Your task to perform on an android device: check data usage Image 0: 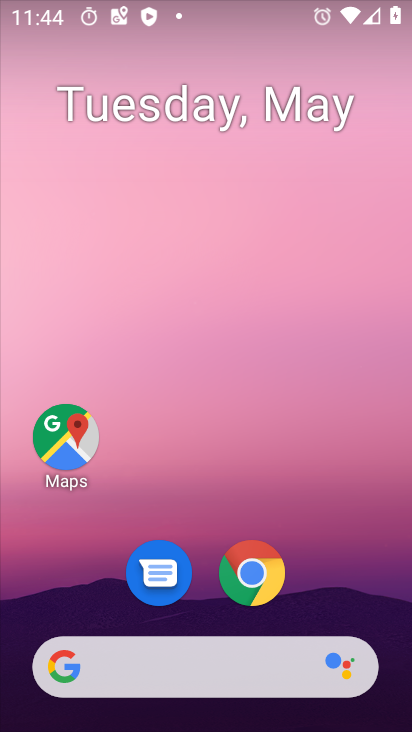
Step 0: drag from (222, 704) to (309, 394)
Your task to perform on an android device: check data usage Image 1: 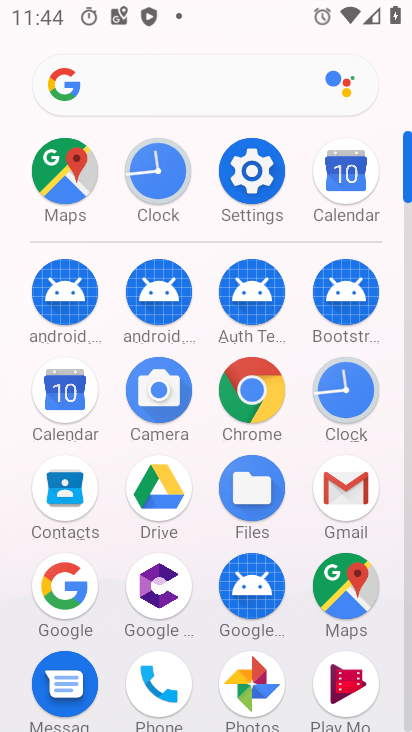
Step 1: click (256, 182)
Your task to perform on an android device: check data usage Image 2: 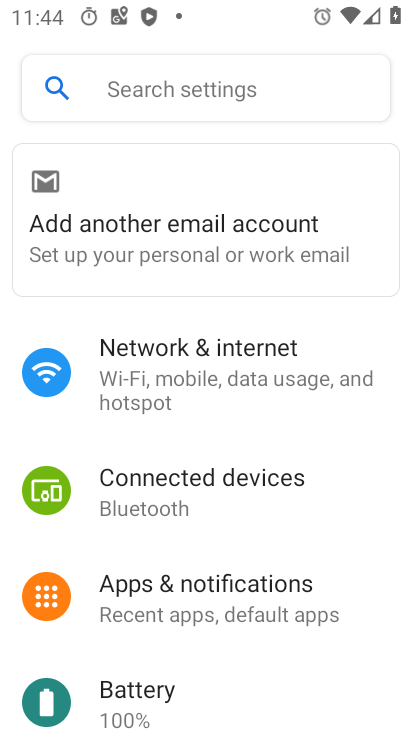
Step 2: click (180, 79)
Your task to perform on an android device: check data usage Image 3: 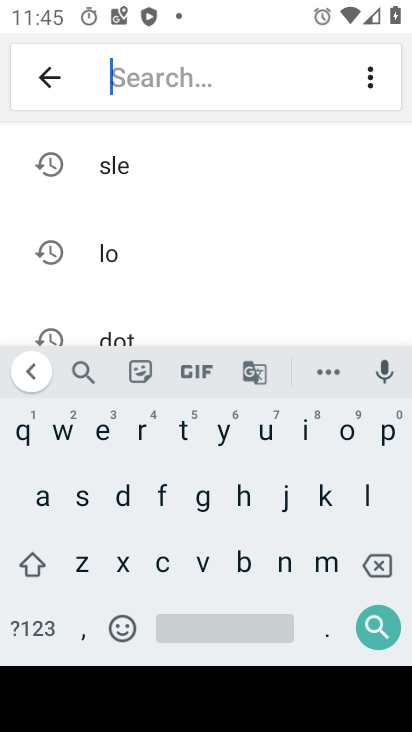
Step 3: click (119, 497)
Your task to perform on an android device: check data usage Image 4: 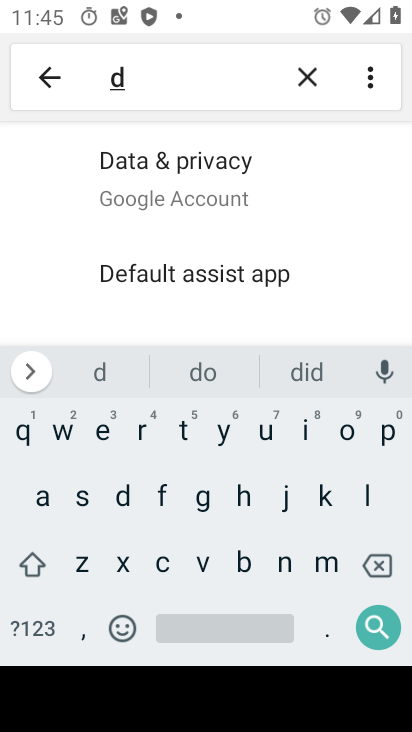
Step 4: click (41, 495)
Your task to perform on an android device: check data usage Image 5: 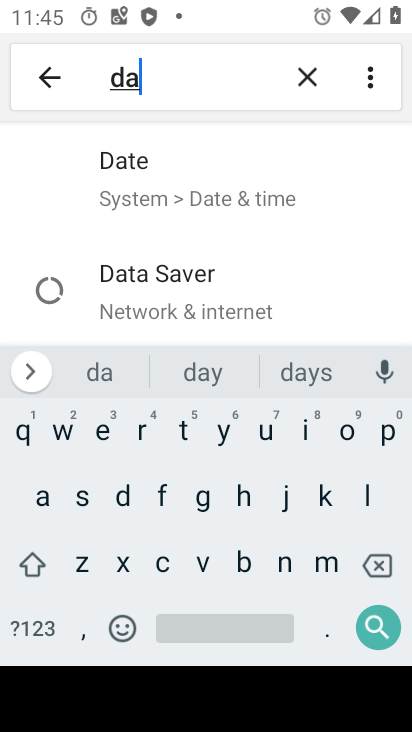
Step 5: click (178, 430)
Your task to perform on an android device: check data usage Image 6: 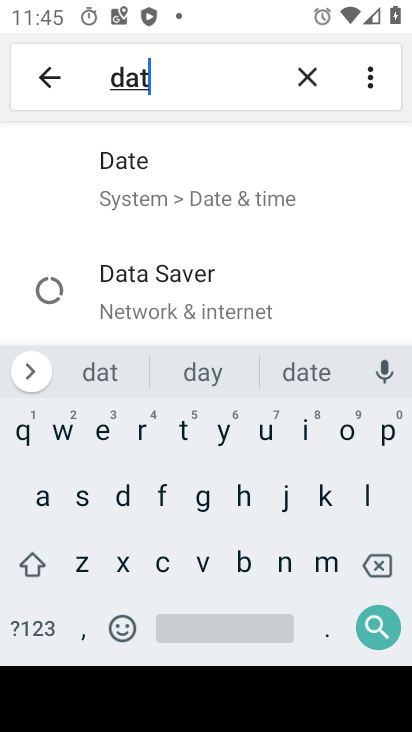
Step 6: click (40, 496)
Your task to perform on an android device: check data usage Image 7: 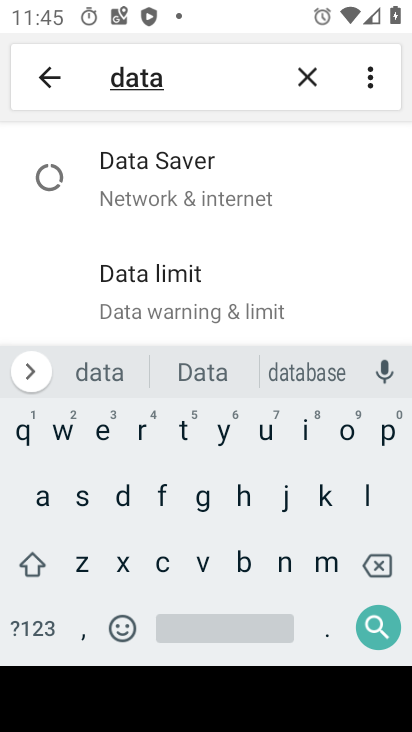
Step 7: click (246, 629)
Your task to perform on an android device: check data usage Image 8: 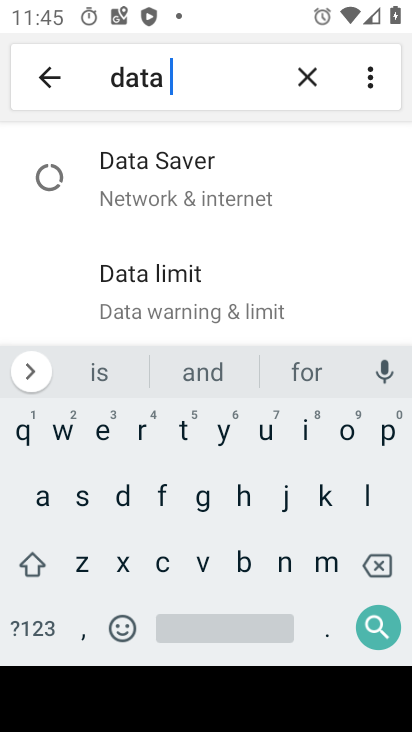
Step 8: click (262, 434)
Your task to perform on an android device: check data usage Image 9: 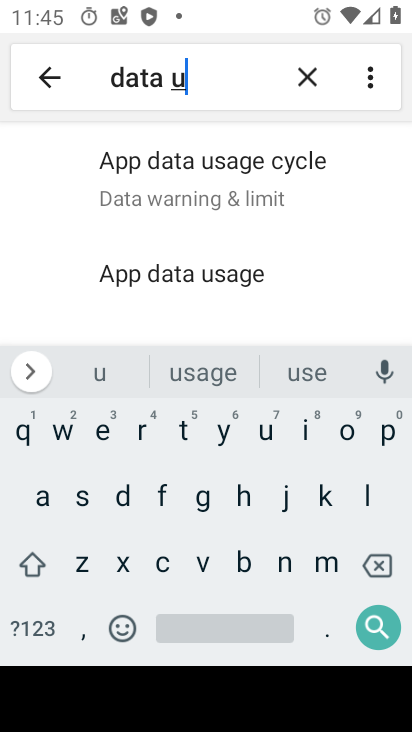
Step 9: click (162, 275)
Your task to perform on an android device: check data usage Image 10: 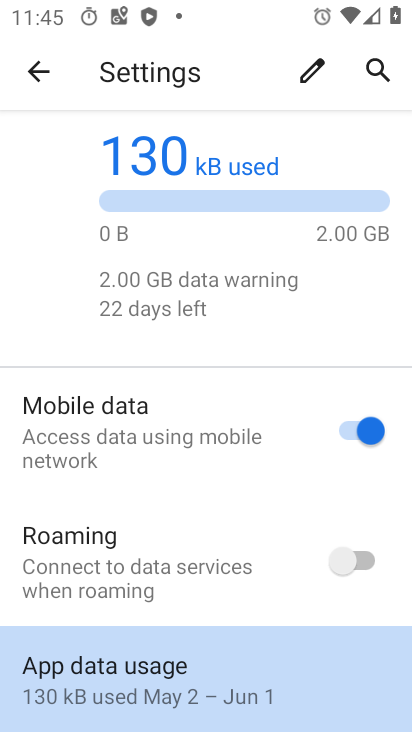
Step 10: click (90, 673)
Your task to perform on an android device: check data usage Image 11: 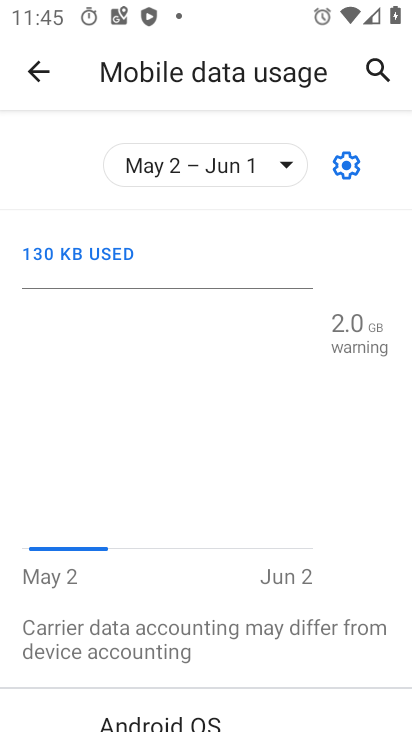
Step 11: task complete